Your task to perform on an android device: install app "Google Duo" Image 0: 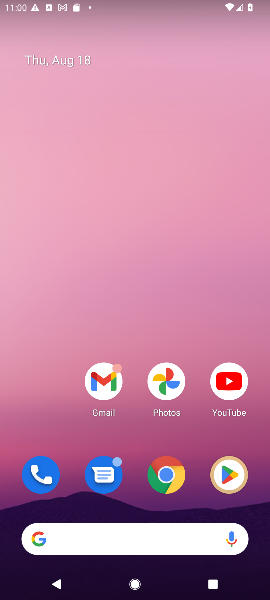
Step 0: drag from (140, 499) to (268, 191)
Your task to perform on an android device: install app "Google Duo" Image 1: 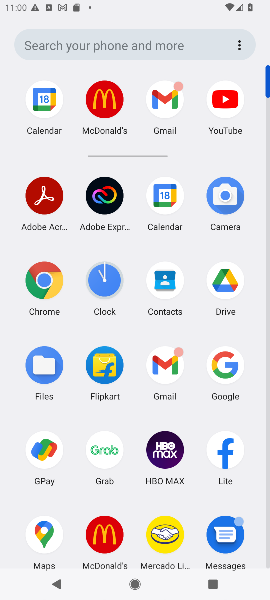
Step 1: drag from (122, 230) to (118, 104)
Your task to perform on an android device: install app "Google Duo" Image 2: 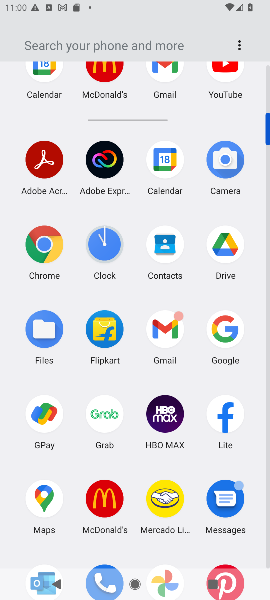
Step 2: drag from (122, 376) to (112, 67)
Your task to perform on an android device: install app "Google Duo" Image 3: 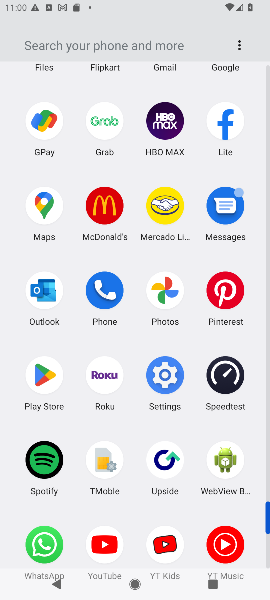
Step 3: click (59, 378)
Your task to perform on an android device: install app "Google Duo" Image 4: 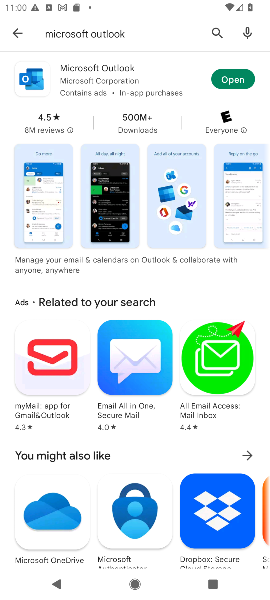
Step 4: click (13, 34)
Your task to perform on an android device: install app "Google Duo" Image 5: 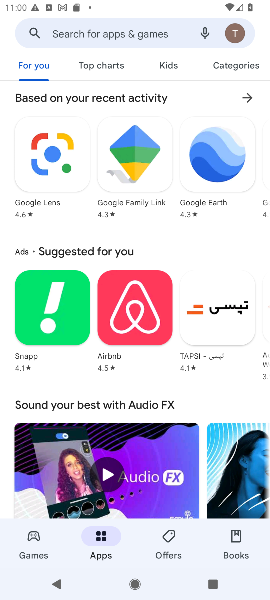
Step 5: click (58, 38)
Your task to perform on an android device: install app "Google Duo" Image 6: 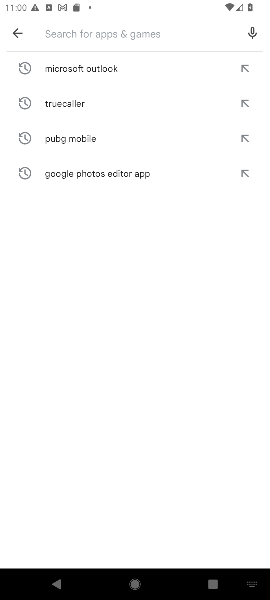
Step 6: type "Google Duo"
Your task to perform on an android device: install app "Google Duo" Image 7: 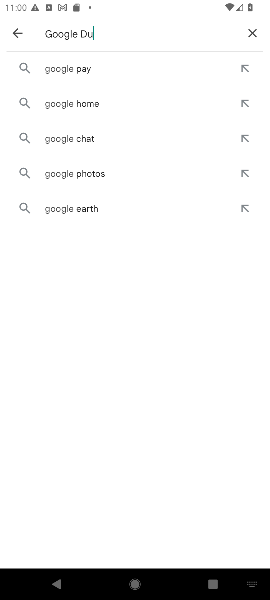
Step 7: type ""
Your task to perform on an android device: install app "Google Duo" Image 8: 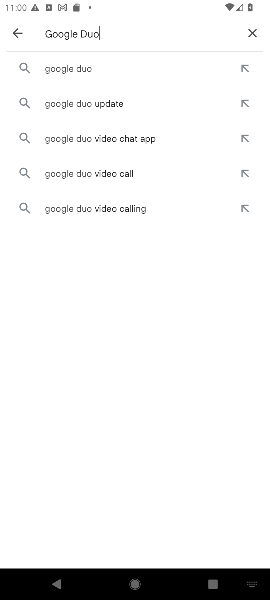
Step 8: click (112, 68)
Your task to perform on an android device: install app "Google Duo" Image 9: 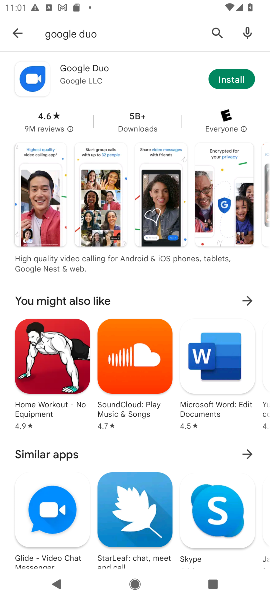
Step 9: click (238, 86)
Your task to perform on an android device: install app "Google Duo" Image 10: 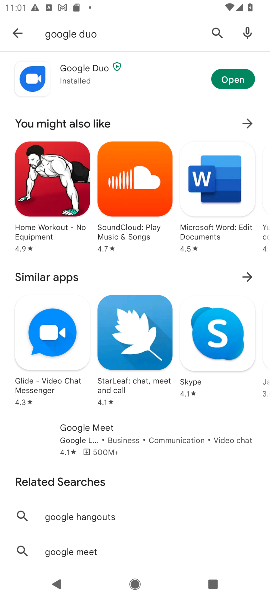
Step 10: click (229, 77)
Your task to perform on an android device: install app "Google Duo" Image 11: 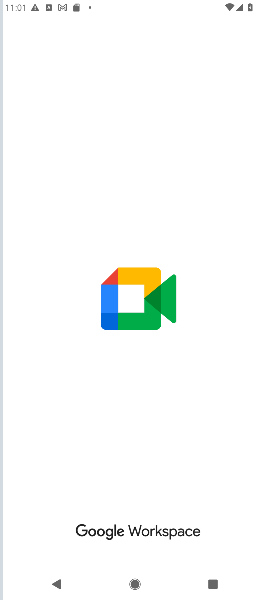
Step 11: task complete